Your task to perform on an android device: Go to notification settings Image 0: 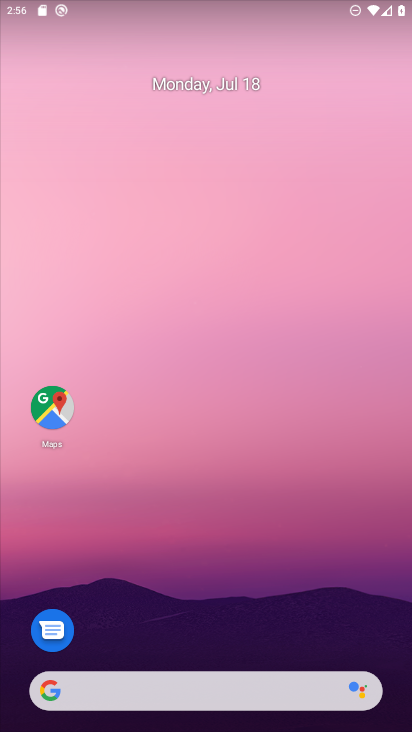
Step 0: drag from (283, 676) to (369, 3)
Your task to perform on an android device: Go to notification settings Image 1: 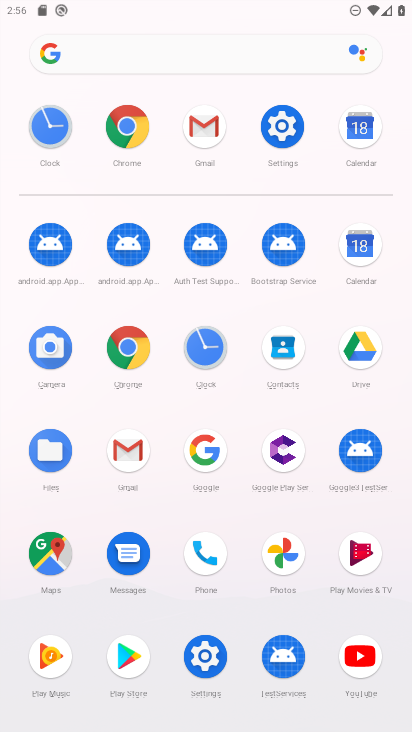
Step 1: click (281, 115)
Your task to perform on an android device: Go to notification settings Image 2: 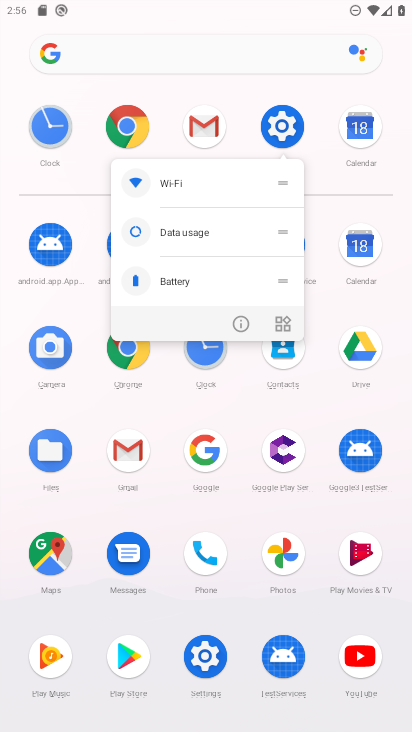
Step 2: click (272, 134)
Your task to perform on an android device: Go to notification settings Image 3: 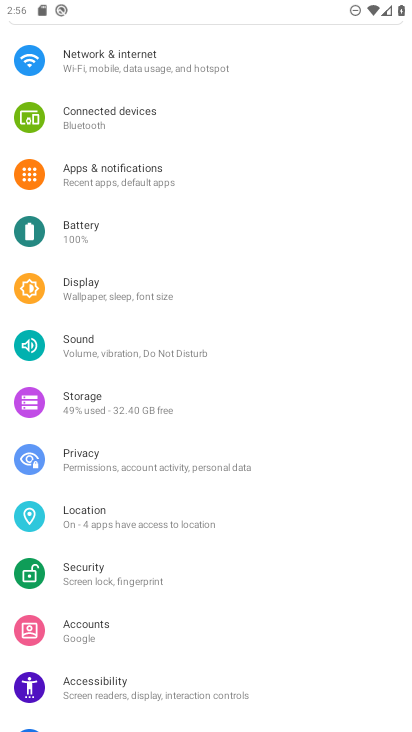
Step 3: click (148, 167)
Your task to perform on an android device: Go to notification settings Image 4: 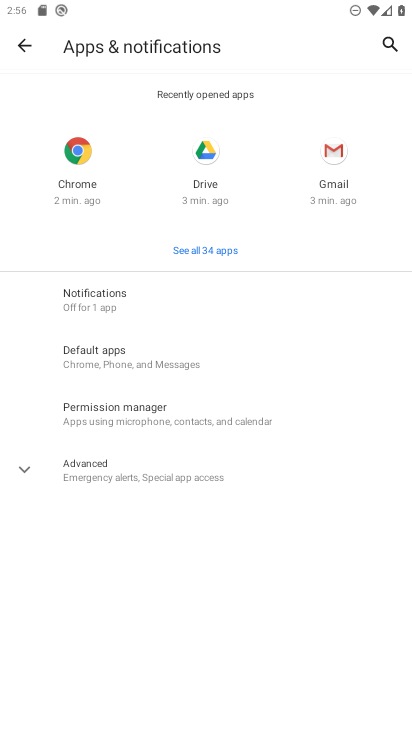
Step 4: task complete